Your task to perform on an android device: check the backup settings in the google photos Image 0: 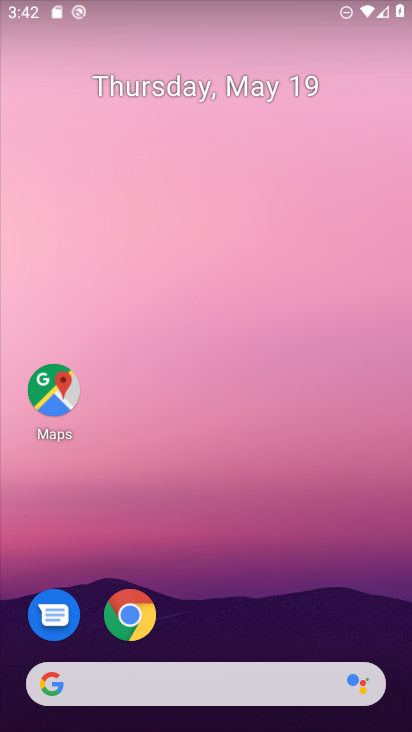
Step 0: drag from (240, 629) to (240, 210)
Your task to perform on an android device: check the backup settings in the google photos Image 1: 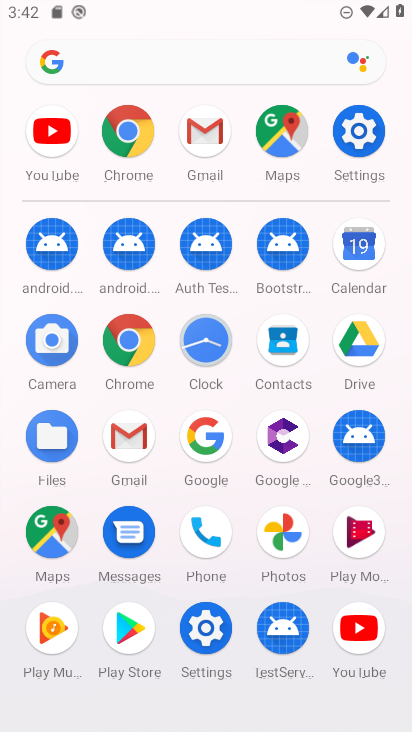
Step 1: click (291, 525)
Your task to perform on an android device: check the backup settings in the google photos Image 2: 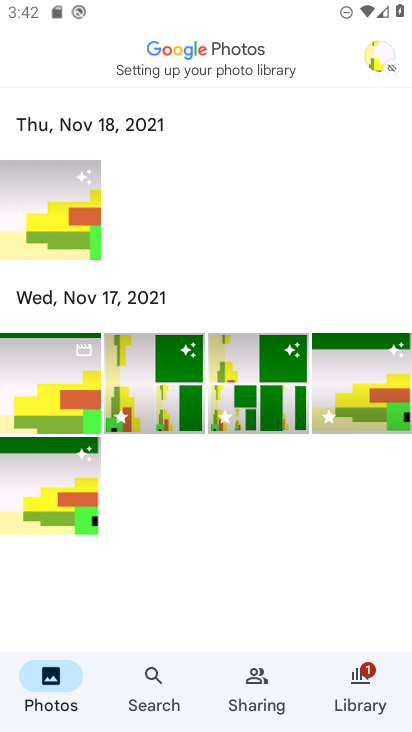
Step 2: click (384, 48)
Your task to perform on an android device: check the backup settings in the google photos Image 3: 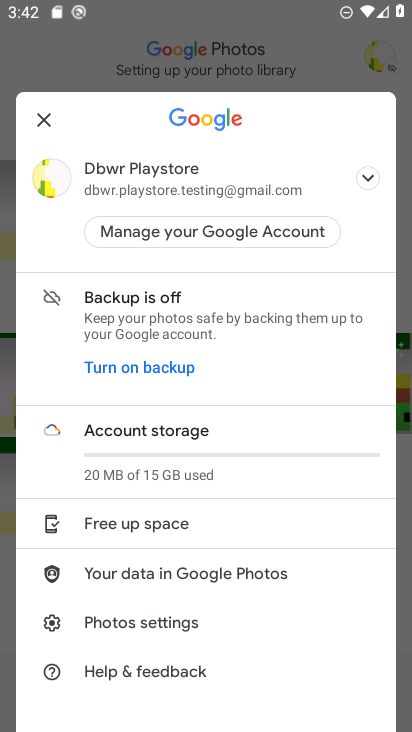
Step 3: click (260, 313)
Your task to perform on an android device: check the backup settings in the google photos Image 4: 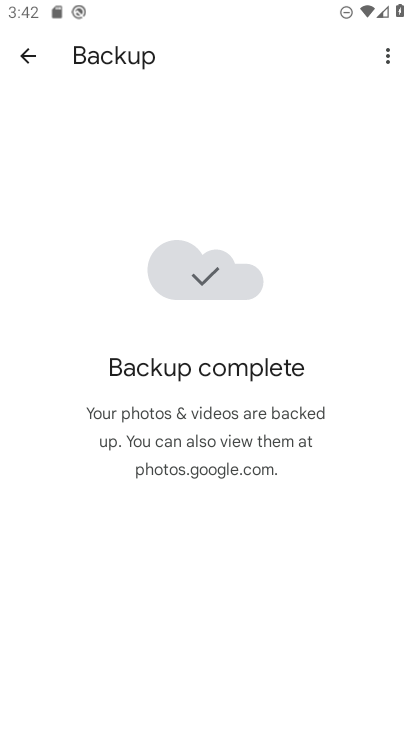
Step 4: click (280, 415)
Your task to perform on an android device: check the backup settings in the google photos Image 5: 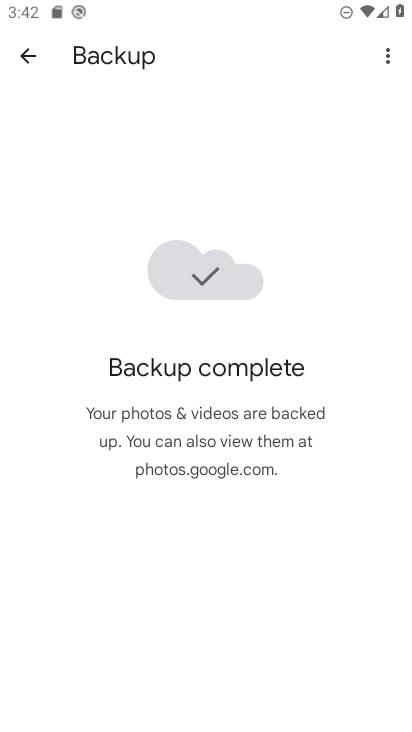
Step 5: click (29, 58)
Your task to perform on an android device: check the backup settings in the google photos Image 6: 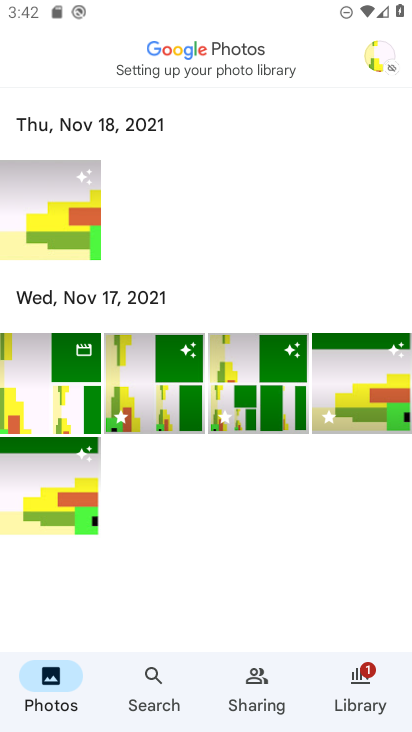
Step 6: click (392, 60)
Your task to perform on an android device: check the backup settings in the google photos Image 7: 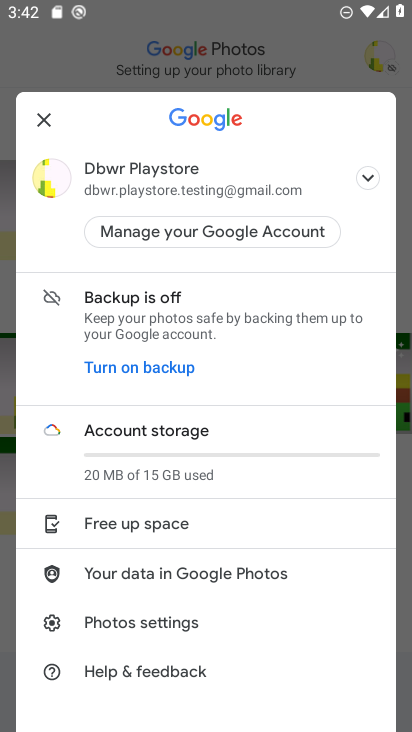
Step 7: click (177, 368)
Your task to perform on an android device: check the backup settings in the google photos Image 8: 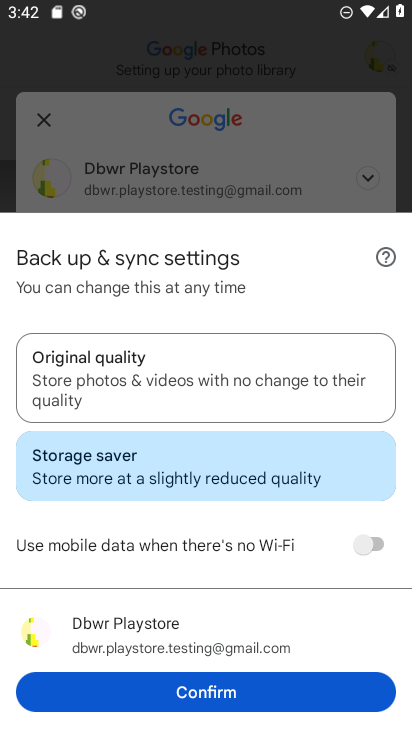
Step 8: task complete